Your task to perform on an android device: Go to battery settings Image 0: 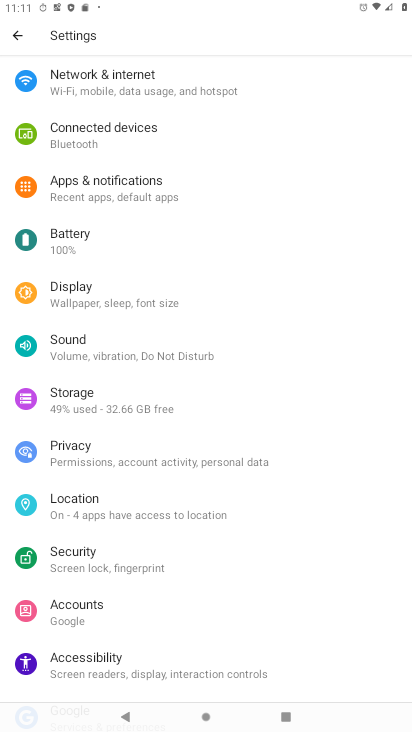
Step 0: click (68, 242)
Your task to perform on an android device: Go to battery settings Image 1: 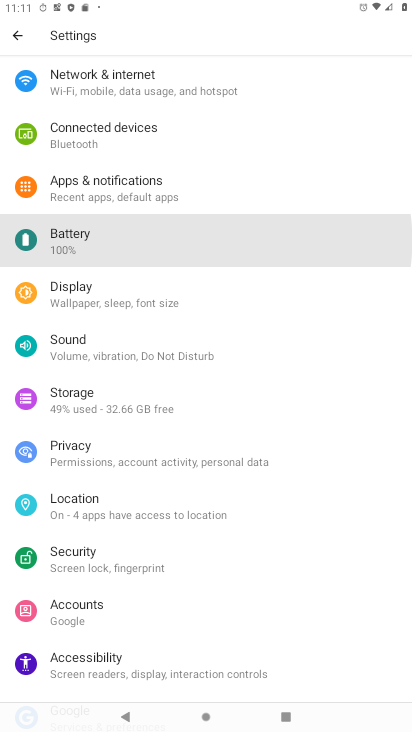
Step 1: click (68, 242)
Your task to perform on an android device: Go to battery settings Image 2: 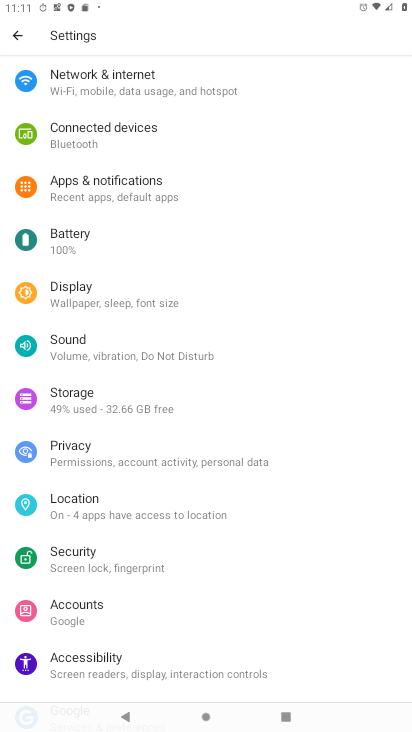
Step 2: click (70, 241)
Your task to perform on an android device: Go to battery settings Image 3: 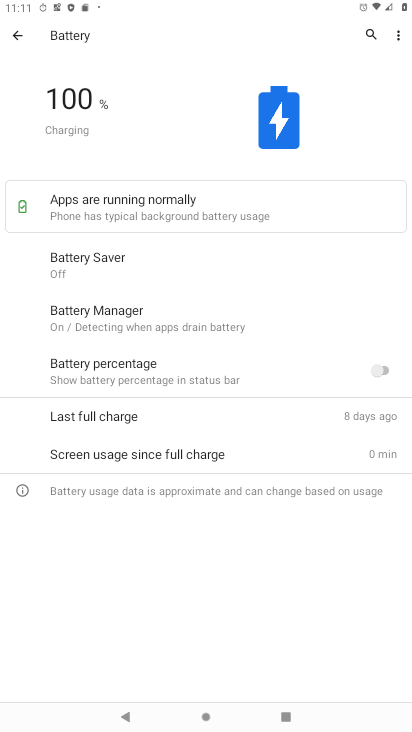
Step 3: task complete